Your task to perform on an android device: open a bookmark in the chrome app Image 0: 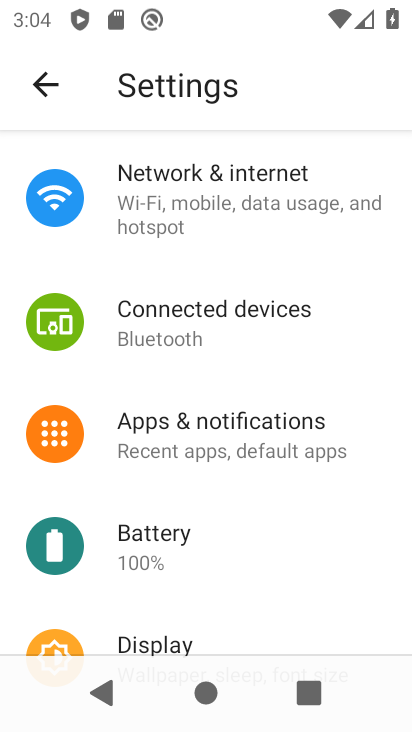
Step 0: press home button
Your task to perform on an android device: open a bookmark in the chrome app Image 1: 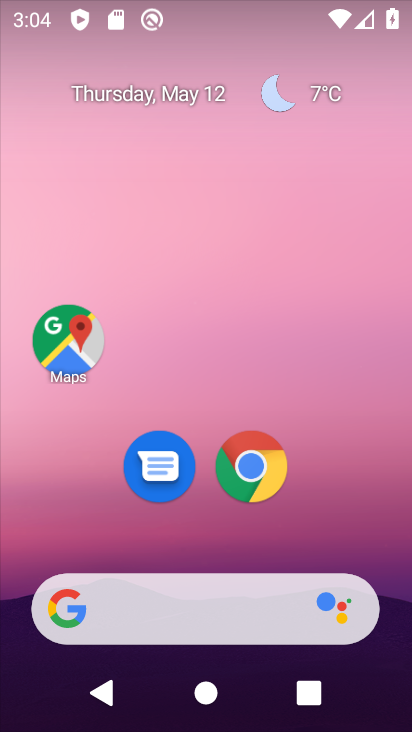
Step 1: click (234, 480)
Your task to perform on an android device: open a bookmark in the chrome app Image 2: 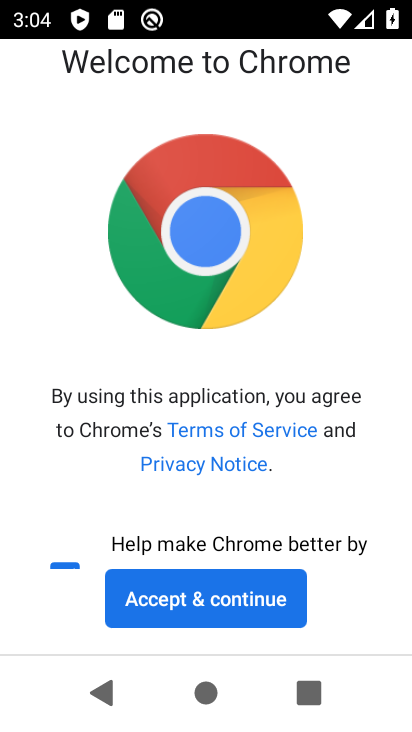
Step 2: click (240, 461)
Your task to perform on an android device: open a bookmark in the chrome app Image 3: 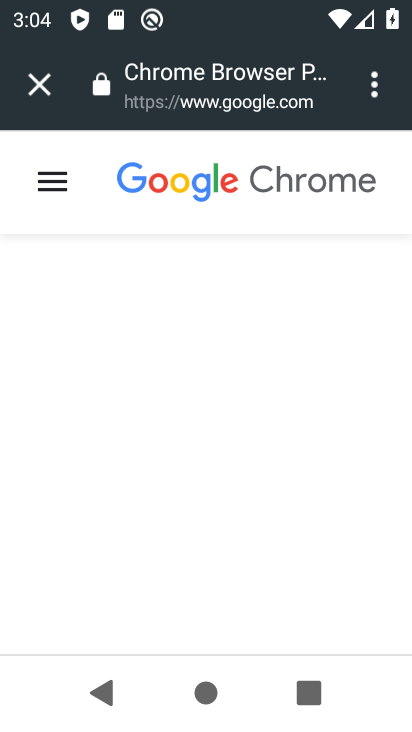
Step 3: click (194, 619)
Your task to perform on an android device: open a bookmark in the chrome app Image 4: 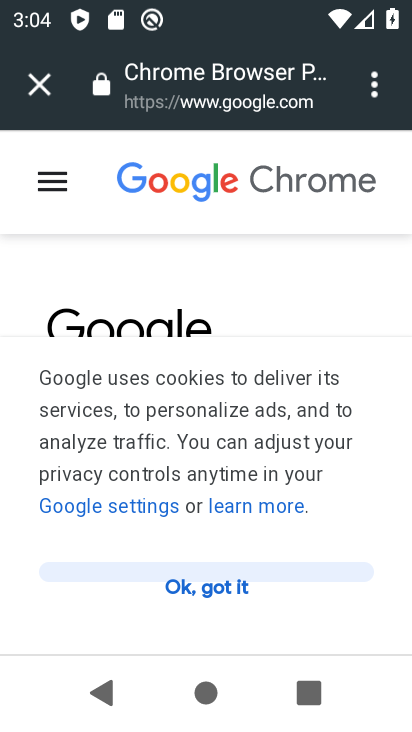
Step 4: click (364, 616)
Your task to perform on an android device: open a bookmark in the chrome app Image 5: 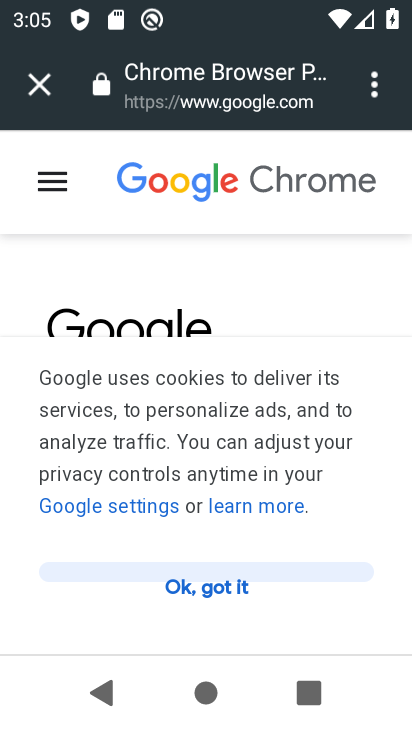
Step 5: click (44, 93)
Your task to perform on an android device: open a bookmark in the chrome app Image 6: 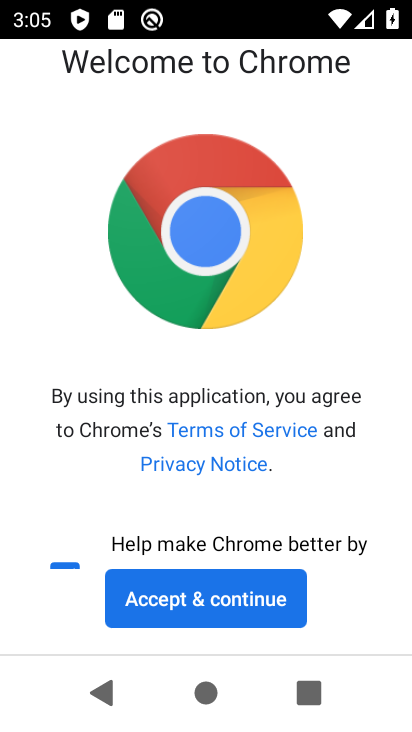
Step 6: click (28, 88)
Your task to perform on an android device: open a bookmark in the chrome app Image 7: 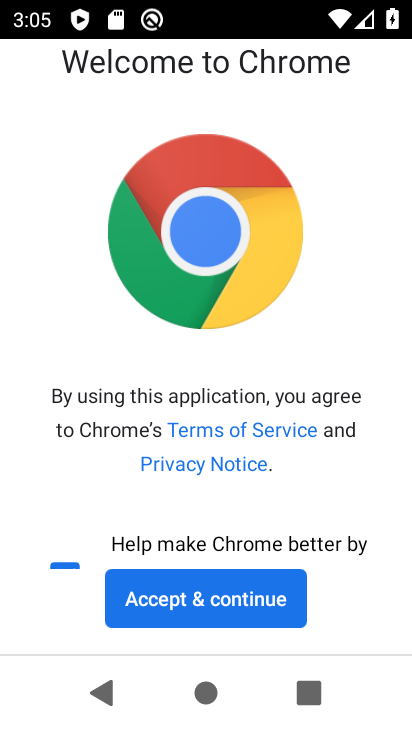
Step 7: click (37, 85)
Your task to perform on an android device: open a bookmark in the chrome app Image 8: 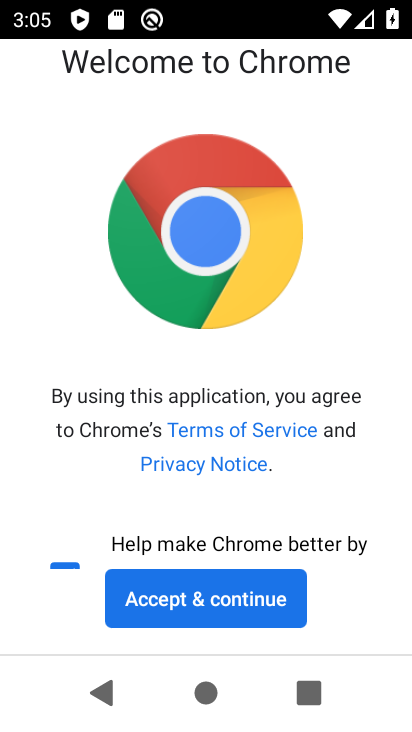
Step 8: click (263, 598)
Your task to perform on an android device: open a bookmark in the chrome app Image 9: 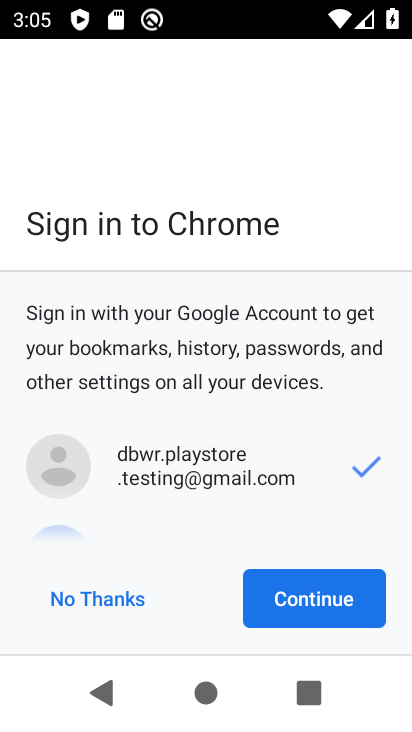
Step 9: click (351, 589)
Your task to perform on an android device: open a bookmark in the chrome app Image 10: 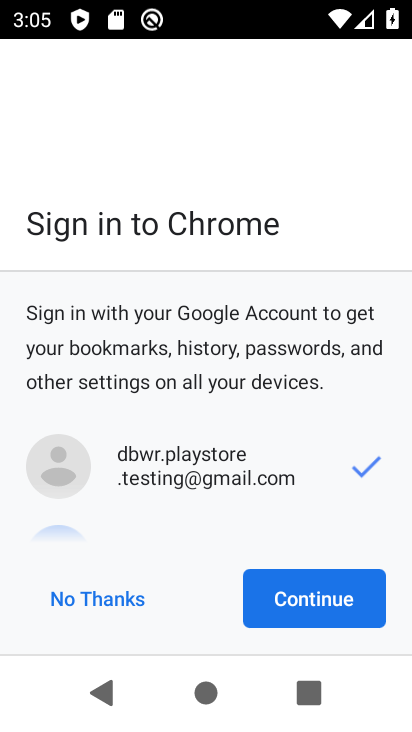
Step 10: click (351, 589)
Your task to perform on an android device: open a bookmark in the chrome app Image 11: 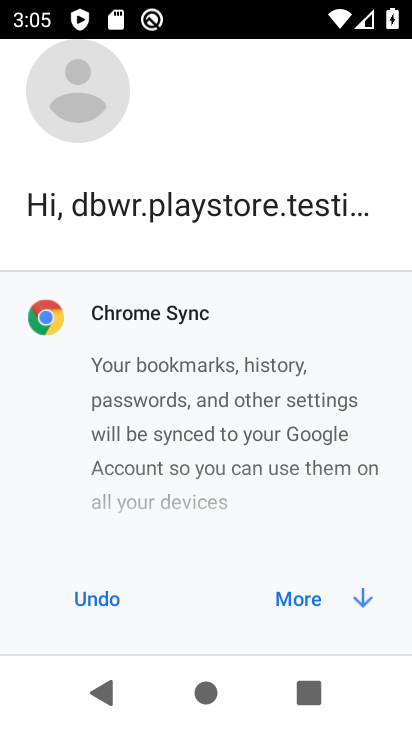
Step 11: click (351, 589)
Your task to perform on an android device: open a bookmark in the chrome app Image 12: 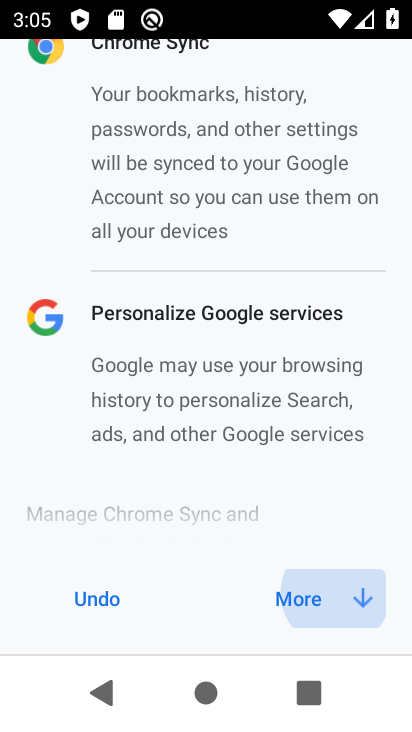
Step 12: click (351, 589)
Your task to perform on an android device: open a bookmark in the chrome app Image 13: 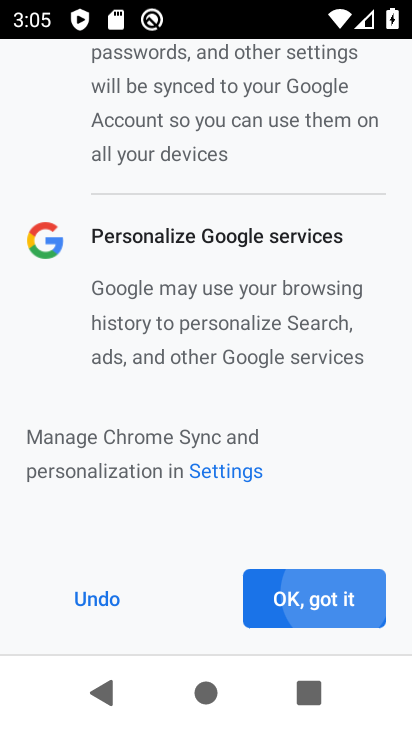
Step 13: click (351, 589)
Your task to perform on an android device: open a bookmark in the chrome app Image 14: 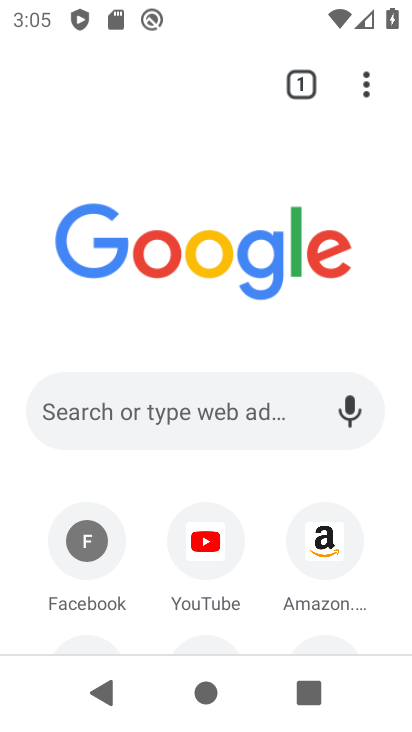
Step 14: task complete